Your task to perform on an android device: Go to ESPN.com Image 0: 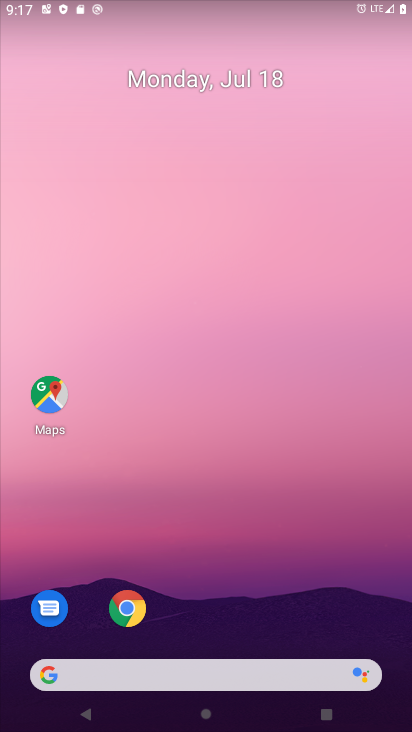
Step 0: click (123, 604)
Your task to perform on an android device: Go to ESPN.com Image 1: 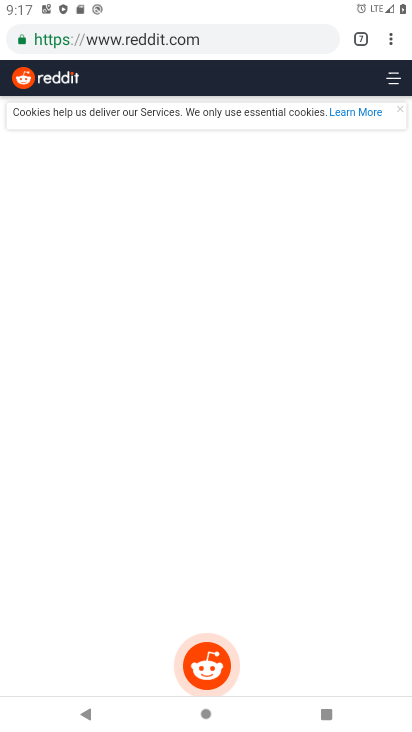
Step 1: click (391, 42)
Your task to perform on an android device: Go to ESPN.com Image 2: 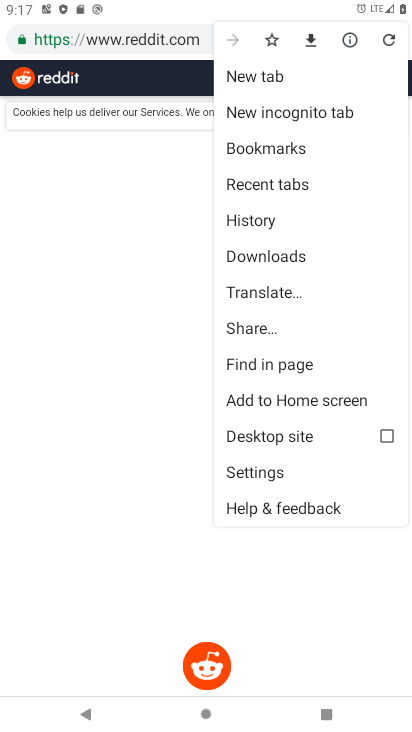
Step 2: click (236, 76)
Your task to perform on an android device: Go to ESPN.com Image 3: 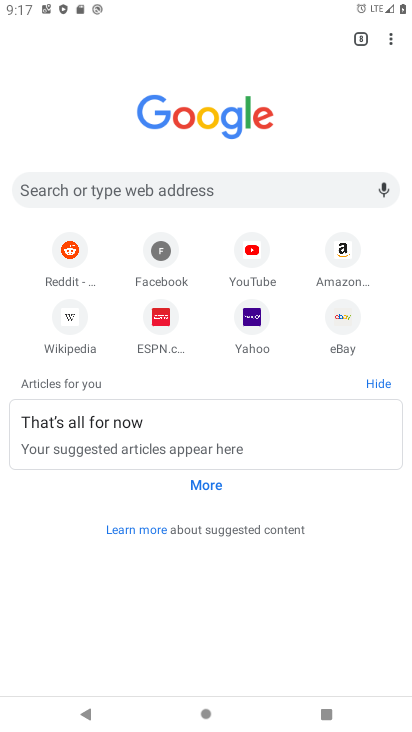
Step 3: click (156, 322)
Your task to perform on an android device: Go to ESPN.com Image 4: 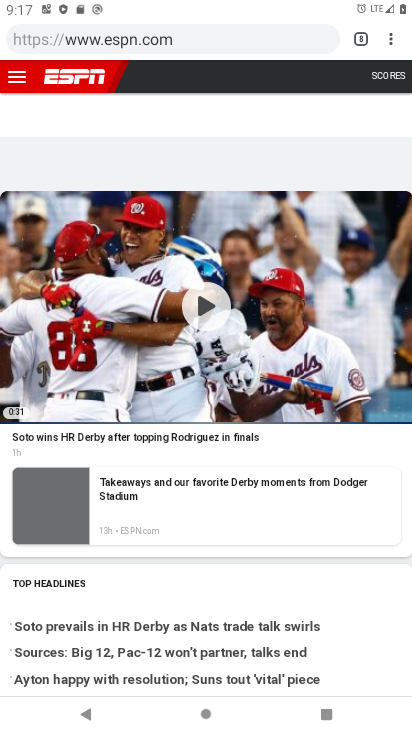
Step 4: task complete